Your task to perform on an android device: delete the emails in spam in the gmail app Image 0: 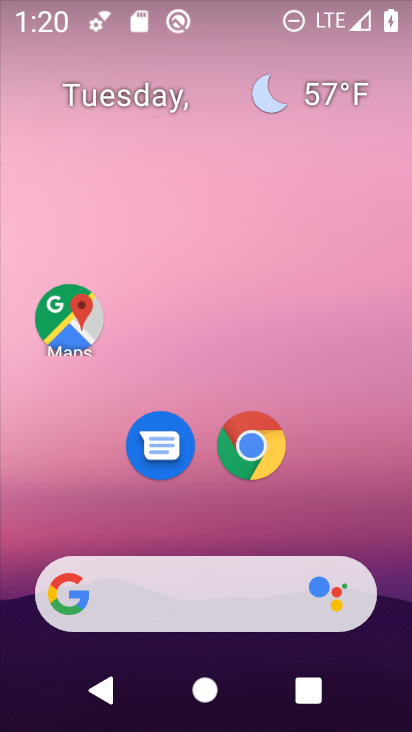
Step 0: drag from (386, 534) to (371, 203)
Your task to perform on an android device: delete the emails in spam in the gmail app Image 1: 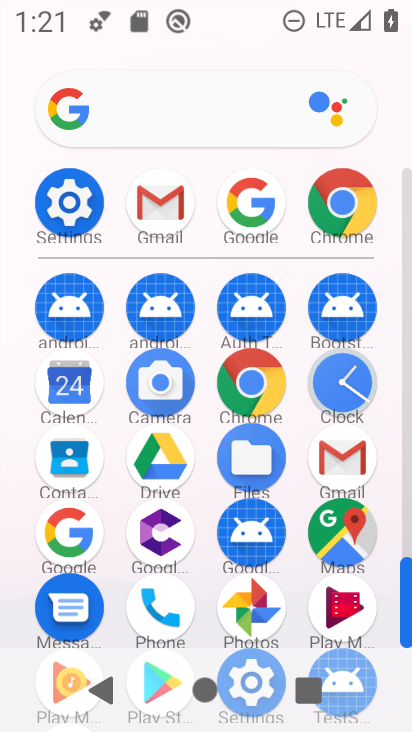
Step 1: click (362, 476)
Your task to perform on an android device: delete the emails in spam in the gmail app Image 2: 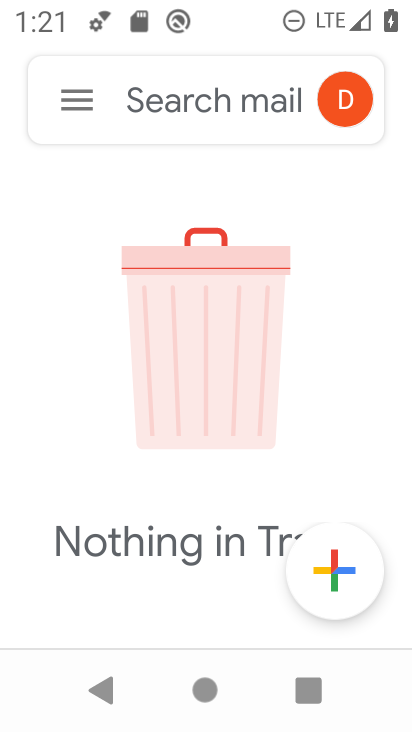
Step 2: click (80, 109)
Your task to perform on an android device: delete the emails in spam in the gmail app Image 3: 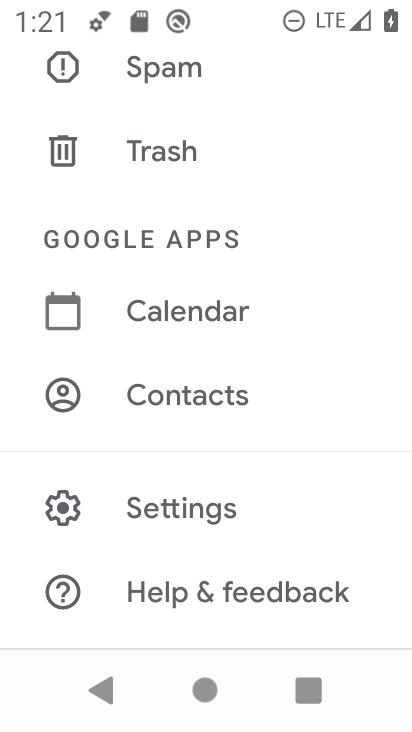
Step 3: drag from (346, 313) to (342, 387)
Your task to perform on an android device: delete the emails in spam in the gmail app Image 4: 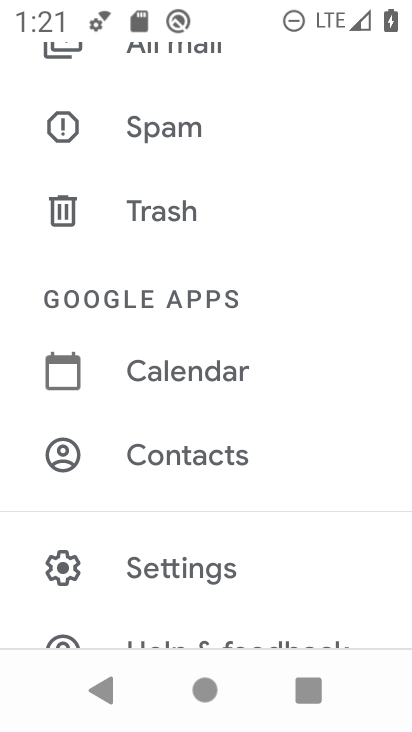
Step 4: drag from (351, 234) to (339, 341)
Your task to perform on an android device: delete the emails in spam in the gmail app Image 5: 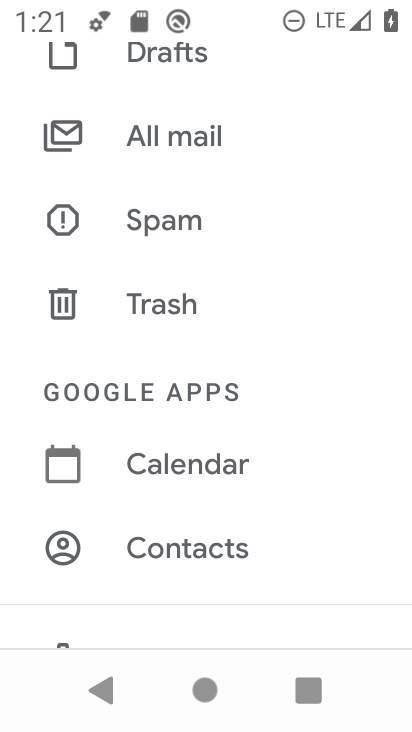
Step 5: drag from (358, 178) to (356, 305)
Your task to perform on an android device: delete the emails in spam in the gmail app Image 6: 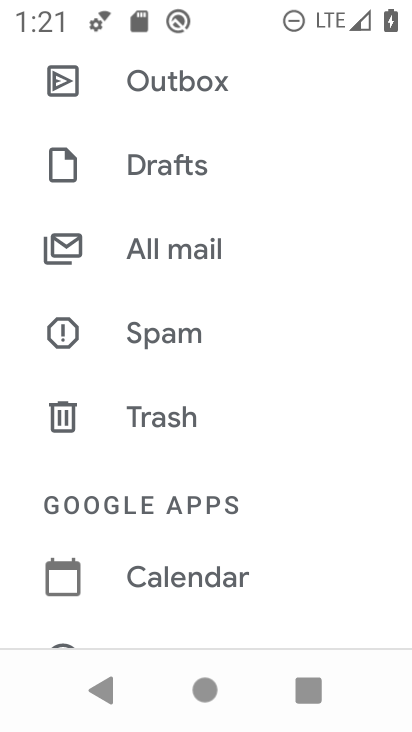
Step 6: drag from (364, 165) to (332, 283)
Your task to perform on an android device: delete the emails in spam in the gmail app Image 7: 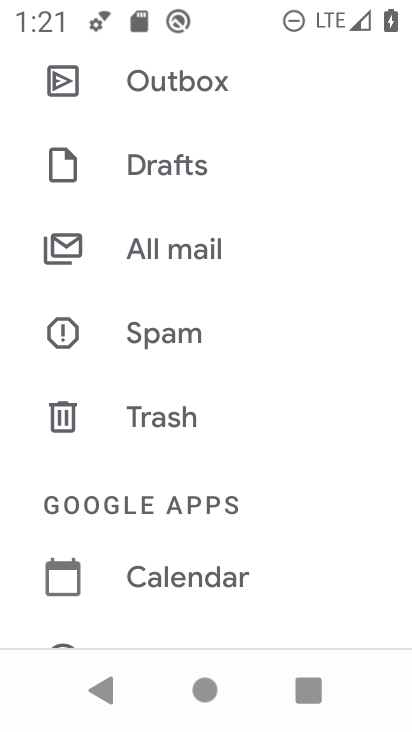
Step 7: drag from (343, 142) to (343, 283)
Your task to perform on an android device: delete the emails in spam in the gmail app Image 8: 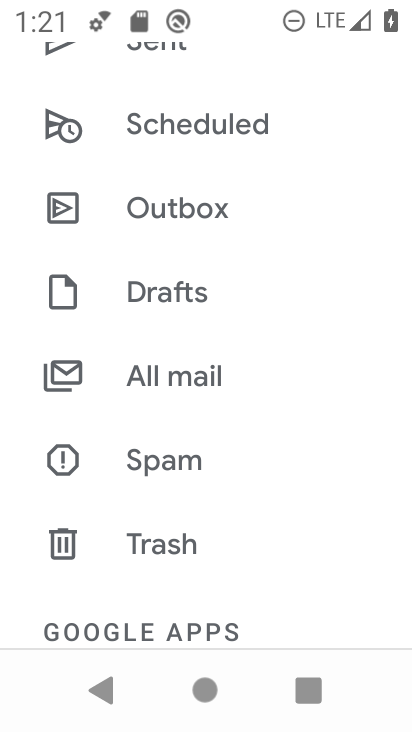
Step 8: drag from (345, 108) to (335, 259)
Your task to perform on an android device: delete the emails in spam in the gmail app Image 9: 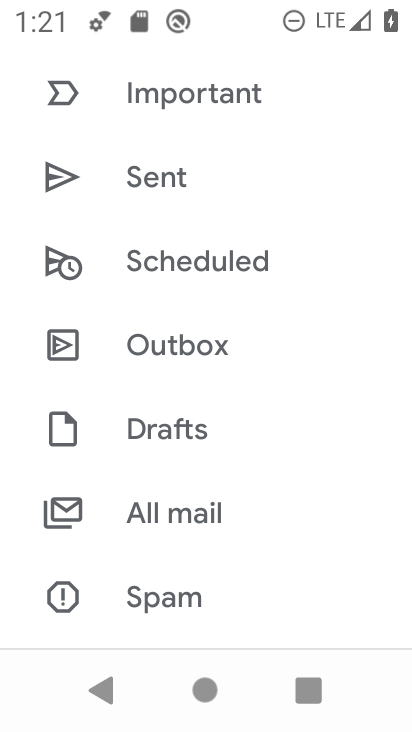
Step 9: drag from (337, 104) to (319, 262)
Your task to perform on an android device: delete the emails in spam in the gmail app Image 10: 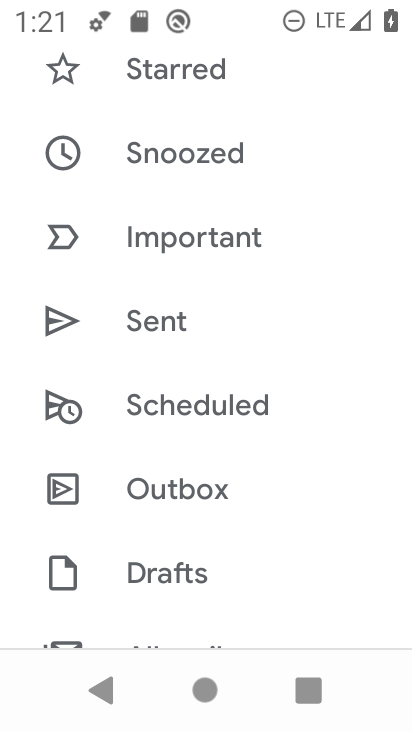
Step 10: drag from (335, 105) to (335, 239)
Your task to perform on an android device: delete the emails in spam in the gmail app Image 11: 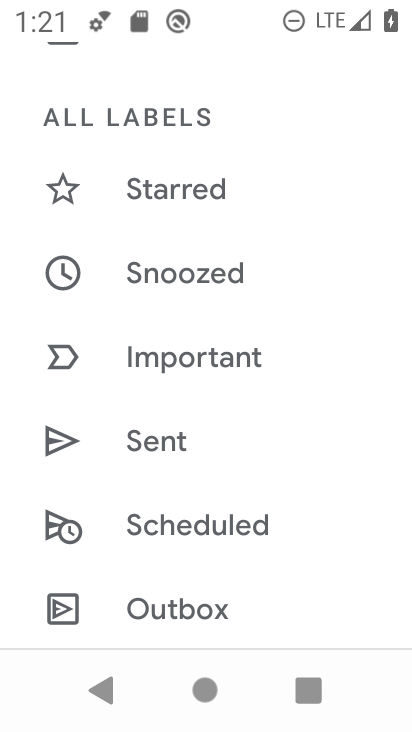
Step 11: drag from (318, 97) to (289, 237)
Your task to perform on an android device: delete the emails in spam in the gmail app Image 12: 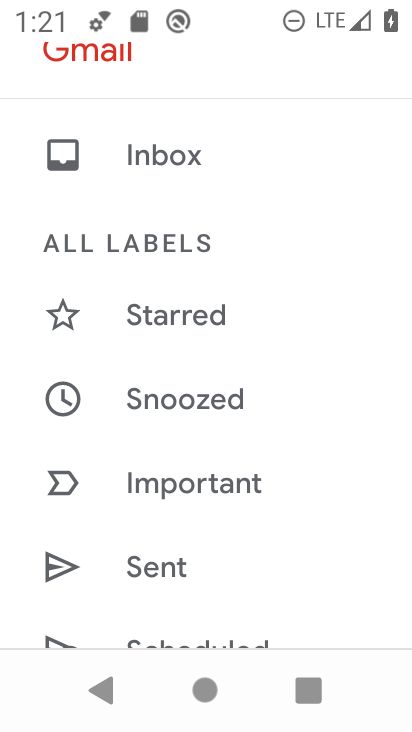
Step 12: drag from (284, 196) to (256, 405)
Your task to perform on an android device: delete the emails in spam in the gmail app Image 13: 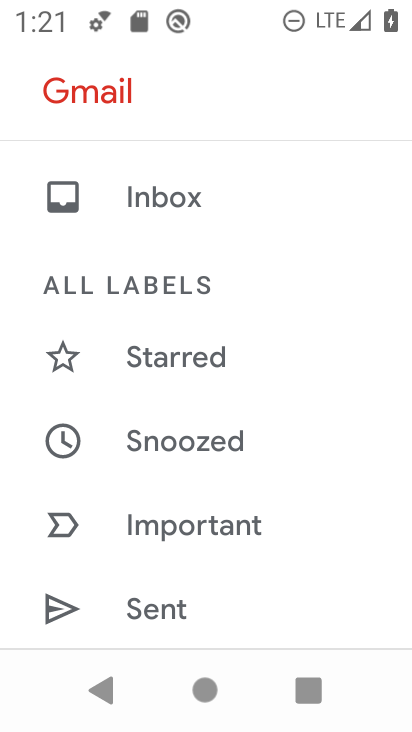
Step 13: click (191, 192)
Your task to perform on an android device: delete the emails in spam in the gmail app Image 14: 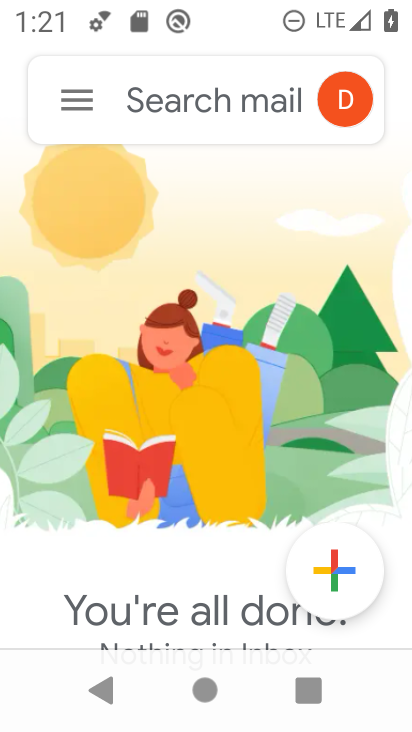
Step 14: task complete